Your task to perform on an android device: Go to sound settings Image 0: 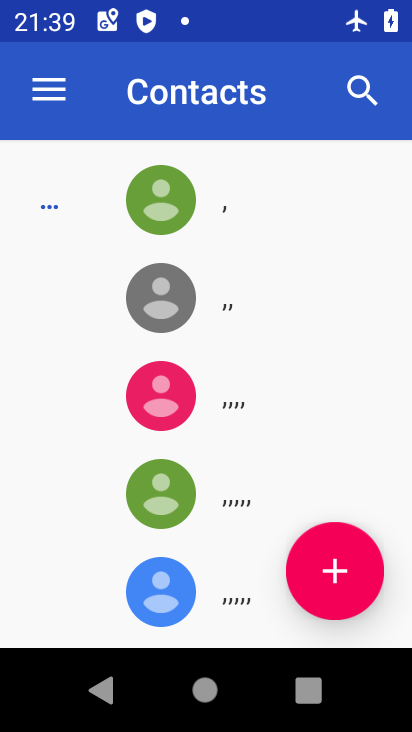
Step 0: press home button
Your task to perform on an android device: Go to sound settings Image 1: 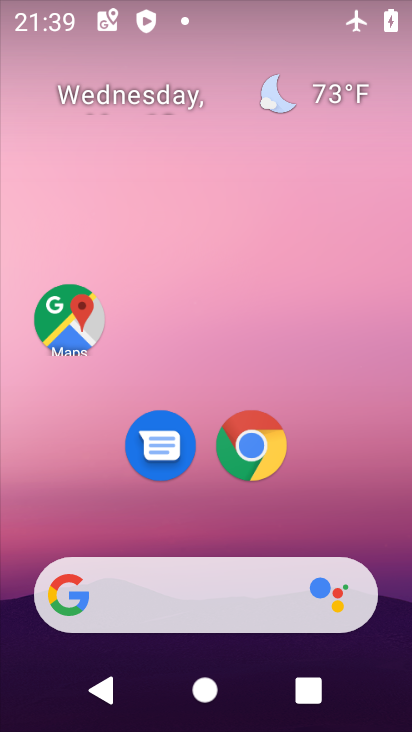
Step 1: drag from (324, 487) to (356, 161)
Your task to perform on an android device: Go to sound settings Image 2: 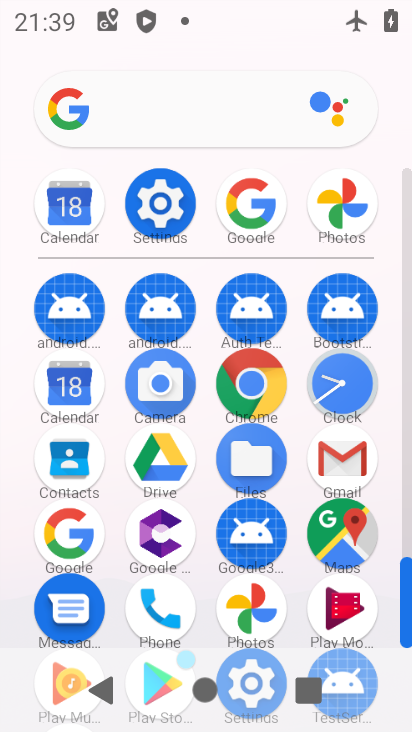
Step 2: click (156, 201)
Your task to perform on an android device: Go to sound settings Image 3: 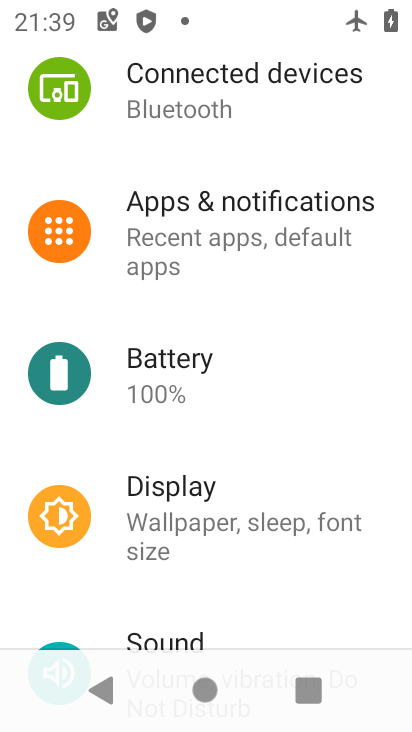
Step 3: drag from (295, 575) to (314, 520)
Your task to perform on an android device: Go to sound settings Image 4: 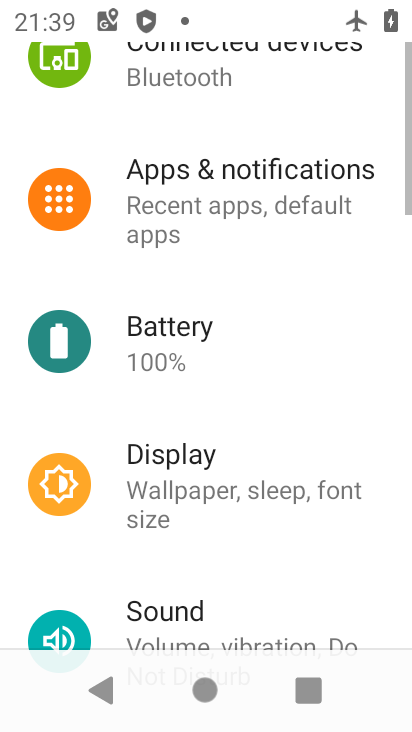
Step 4: drag from (321, 478) to (337, 367)
Your task to perform on an android device: Go to sound settings Image 5: 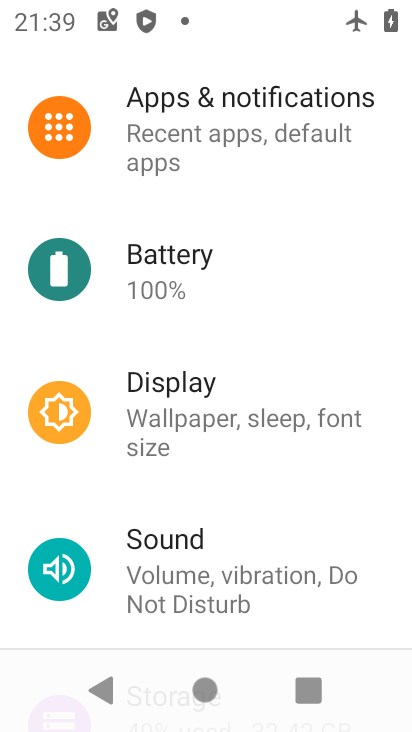
Step 5: click (228, 561)
Your task to perform on an android device: Go to sound settings Image 6: 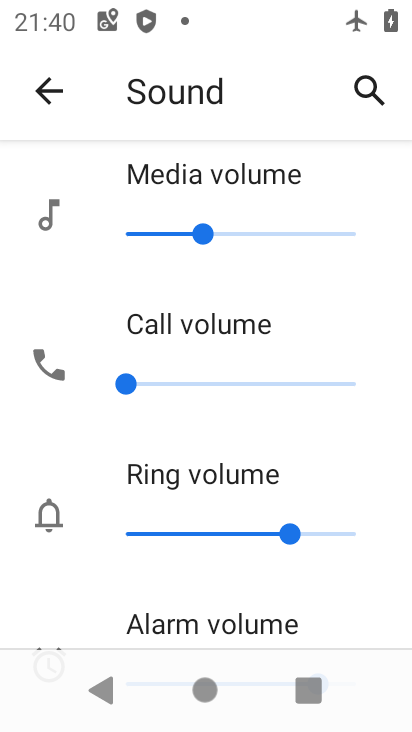
Step 6: task complete